Your task to perform on an android device: What's the weather today? Image 0: 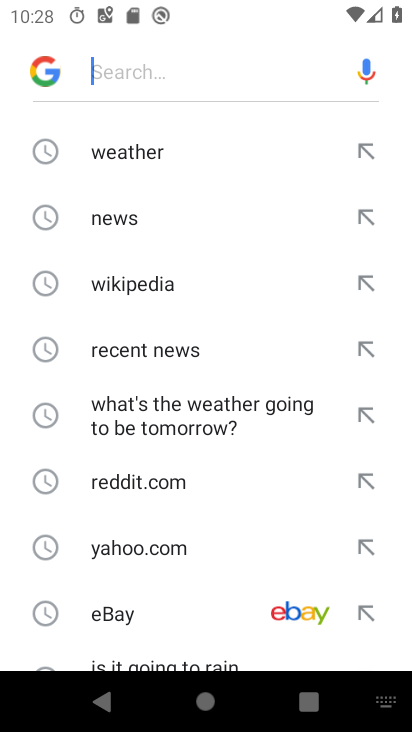
Step 0: press home button
Your task to perform on an android device: What's the weather today? Image 1: 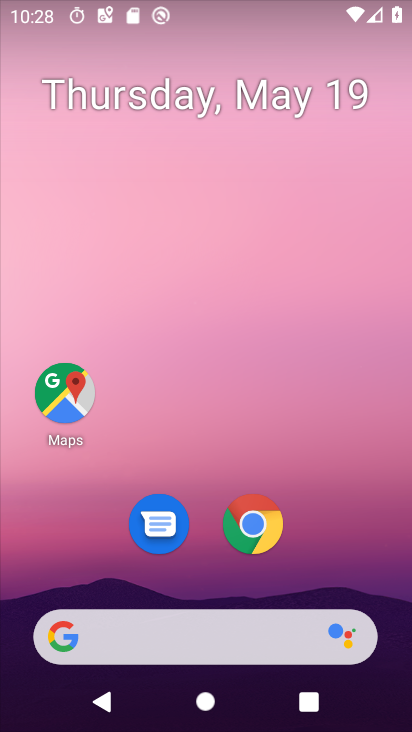
Step 1: click (264, 650)
Your task to perform on an android device: What's the weather today? Image 2: 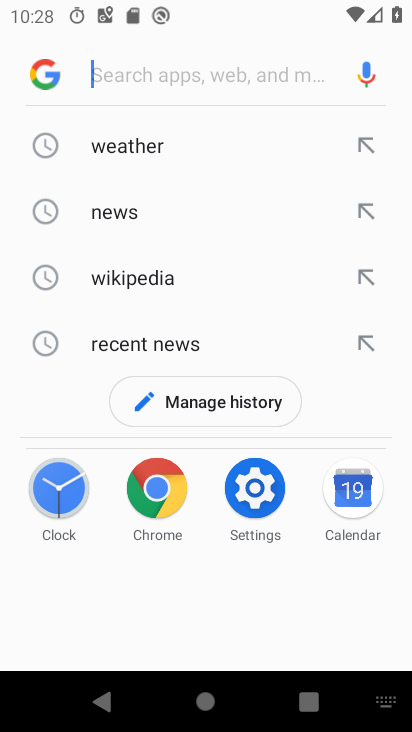
Step 2: click (106, 148)
Your task to perform on an android device: What's the weather today? Image 3: 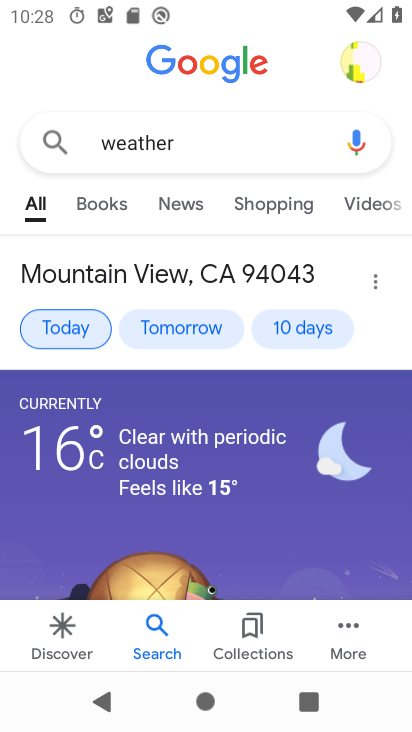
Step 3: click (86, 327)
Your task to perform on an android device: What's the weather today? Image 4: 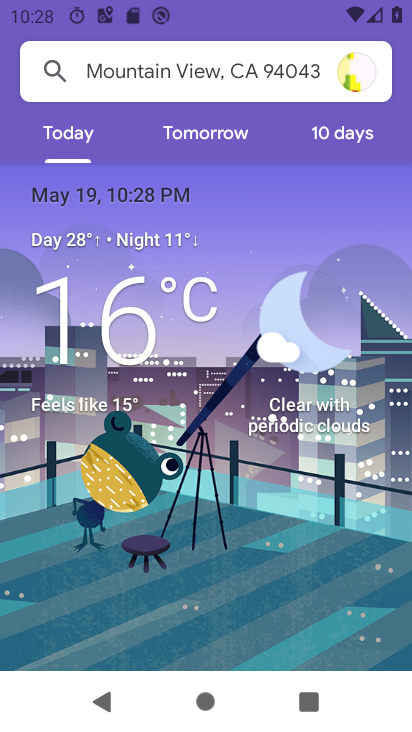
Step 4: task complete